Your task to perform on an android device: Show me the alarms in the clock app Image 0: 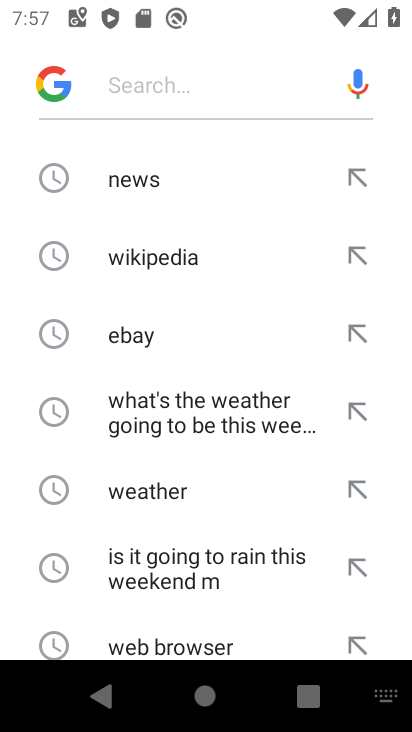
Step 0: press home button
Your task to perform on an android device: Show me the alarms in the clock app Image 1: 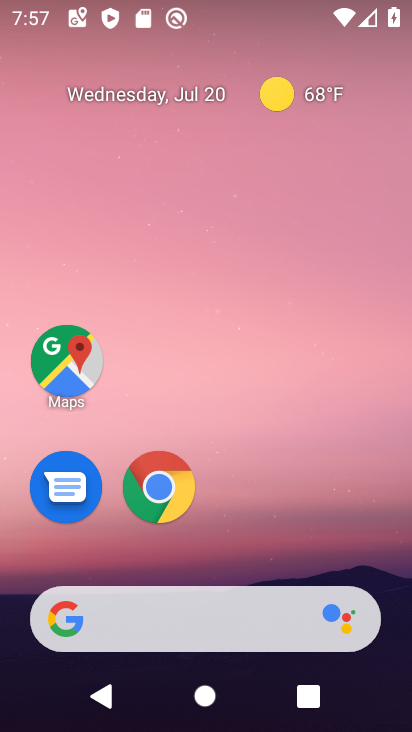
Step 1: drag from (311, 518) to (347, 72)
Your task to perform on an android device: Show me the alarms in the clock app Image 2: 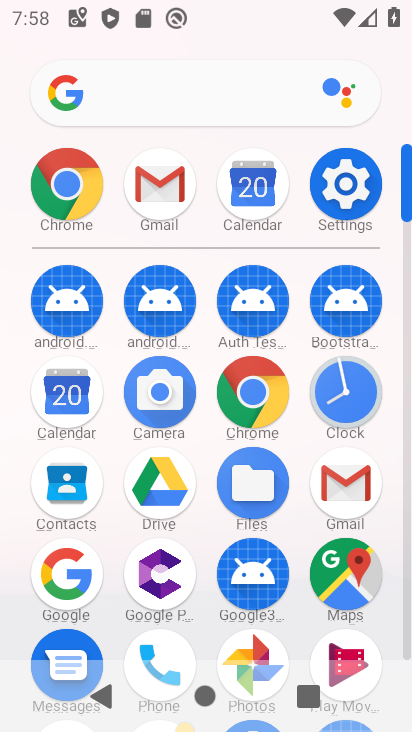
Step 2: click (357, 382)
Your task to perform on an android device: Show me the alarms in the clock app Image 3: 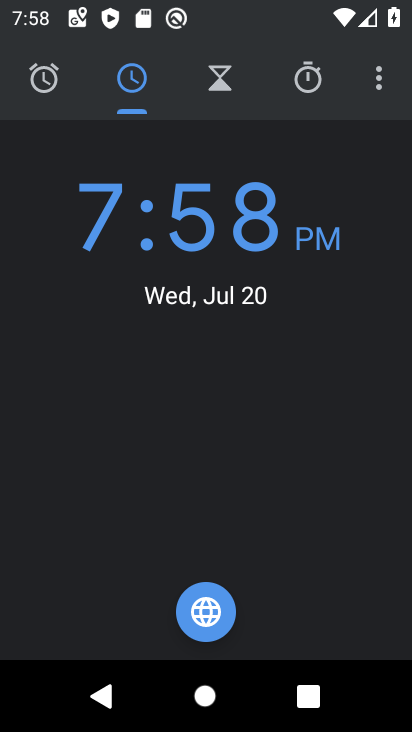
Step 3: click (49, 91)
Your task to perform on an android device: Show me the alarms in the clock app Image 4: 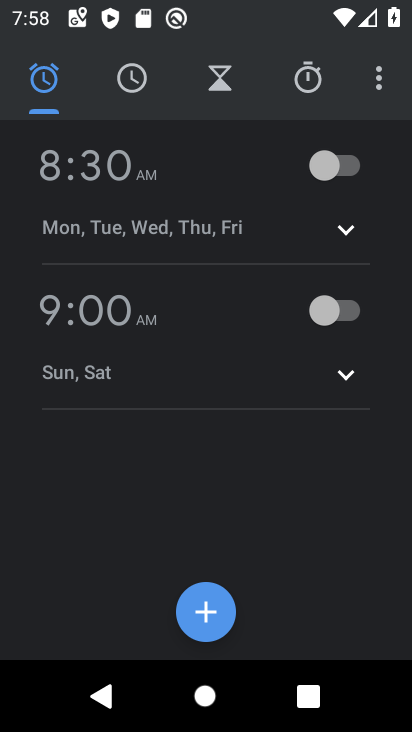
Step 4: task complete